Your task to perform on an android device: delete the emails in spam in the gmail app Image 0: 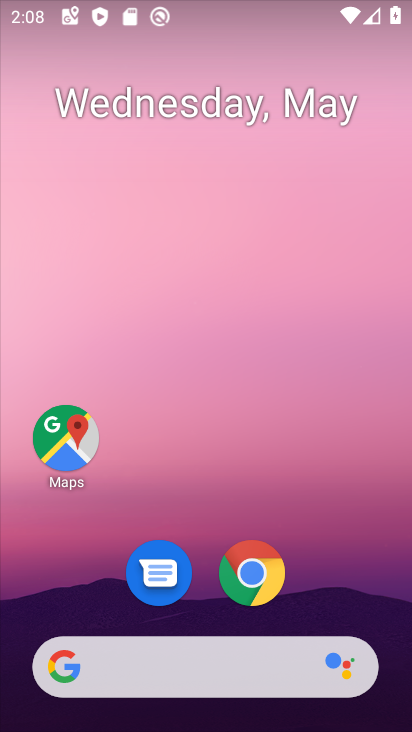
Step 0: click (260, 564)
Your task to perform on an android device: delete the emails in spam in the gmail app Image 1: 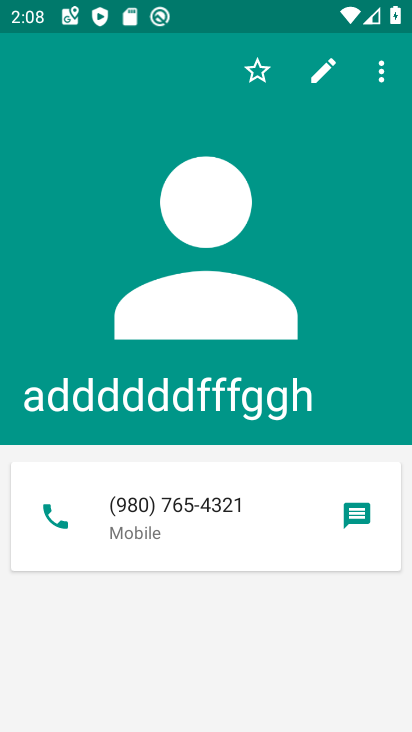
Step 1: press home button
Your task to perform on an android device: delete the emails in spam in the gmail app Image 2: 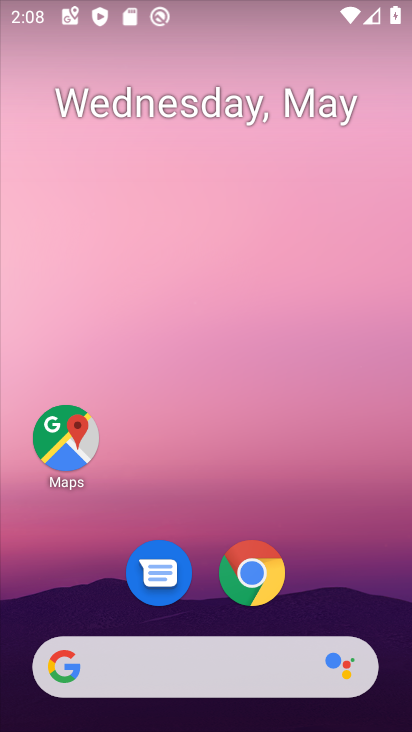
Step 2: drag from (209, 614) to (196, 72)
Your task to perform on an android device: delete the emails in spam in the gmail app Image 3: 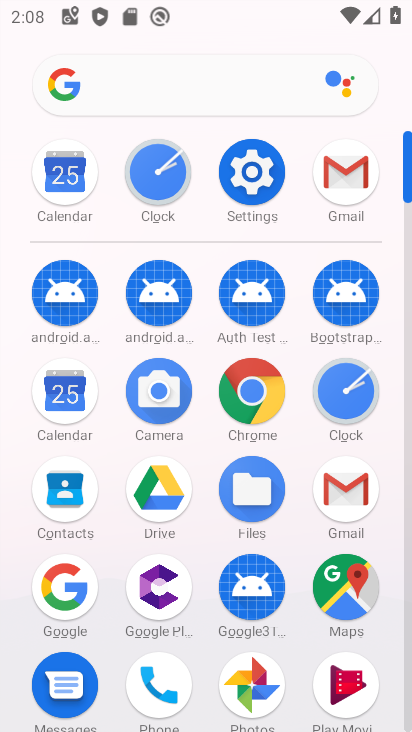
Step 3: click (361, 169)
Your task to perform on an android device: delete the emails in spam in the gmail app Image 4: 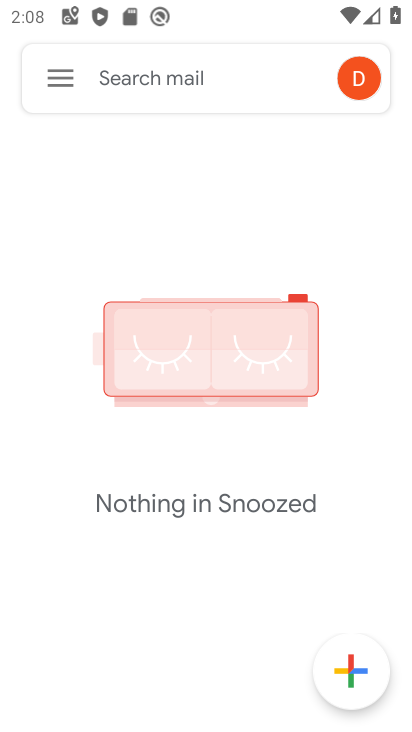
Step 4: click (58, 75)
Your task to perform on an android device: delete the emails in spam in the gmail app Image 5: 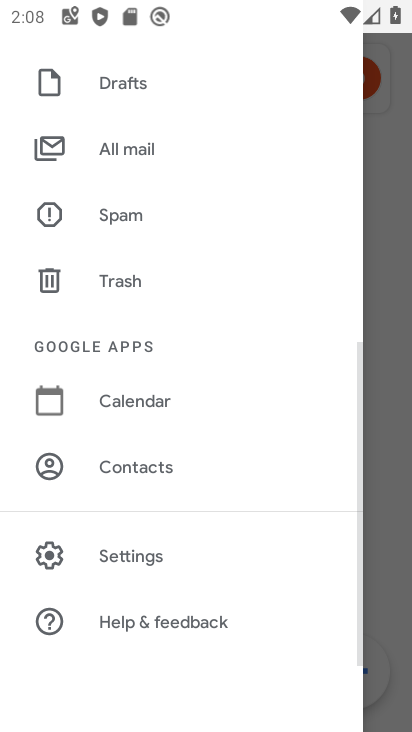
Step 5: click (126, 216)
Your task to perform on an android device: delete the emails in spam in the gmail app Image 6: 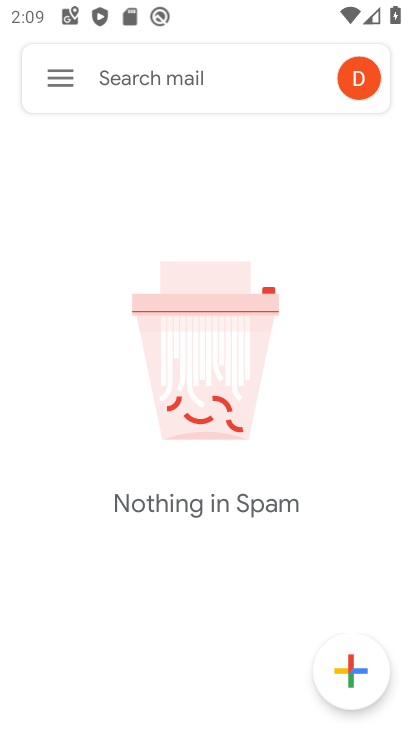
Step 6: task complete